Your task to perform on an android device: Open Android settings Image 0: 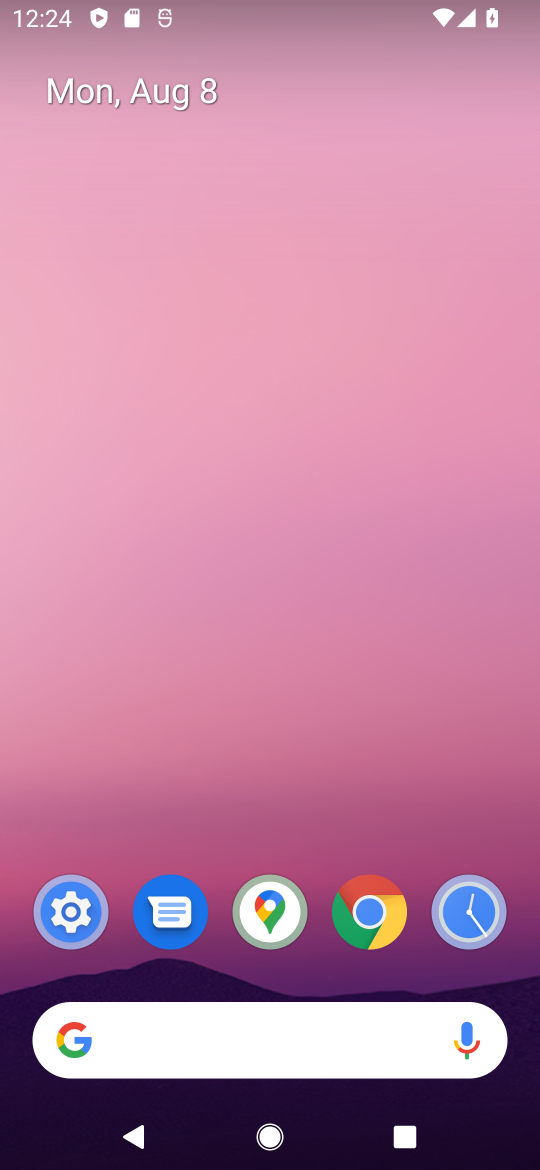
Step 0: click (50, 899)
Your task to perform on an android device: Open Android settings Image 1: 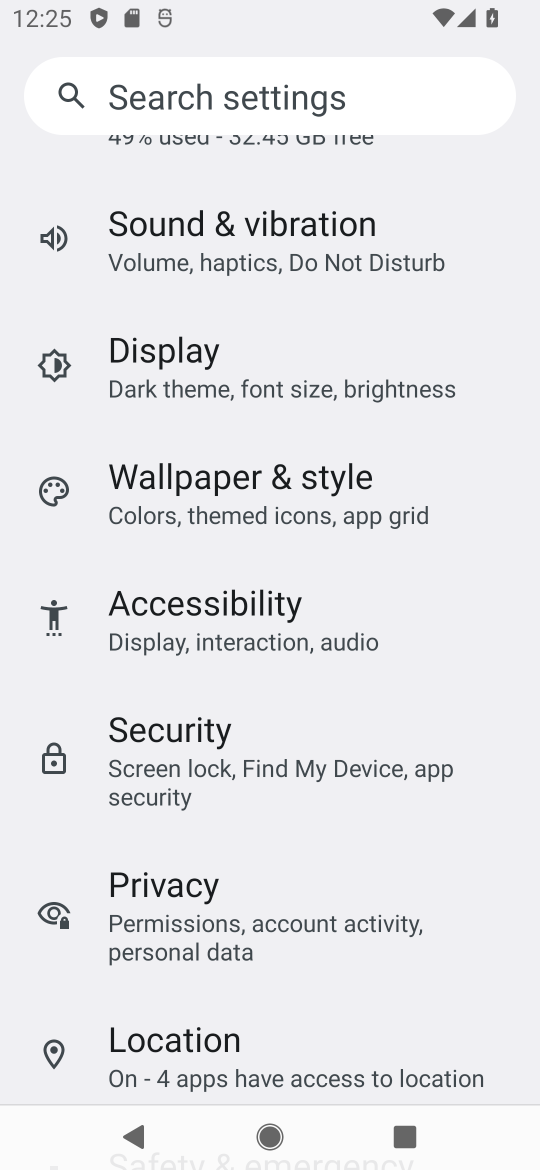
Step 1: drag from (192, 1034) to (329, 120)
Your task to perform on an android device: Open Android settings Image 2: 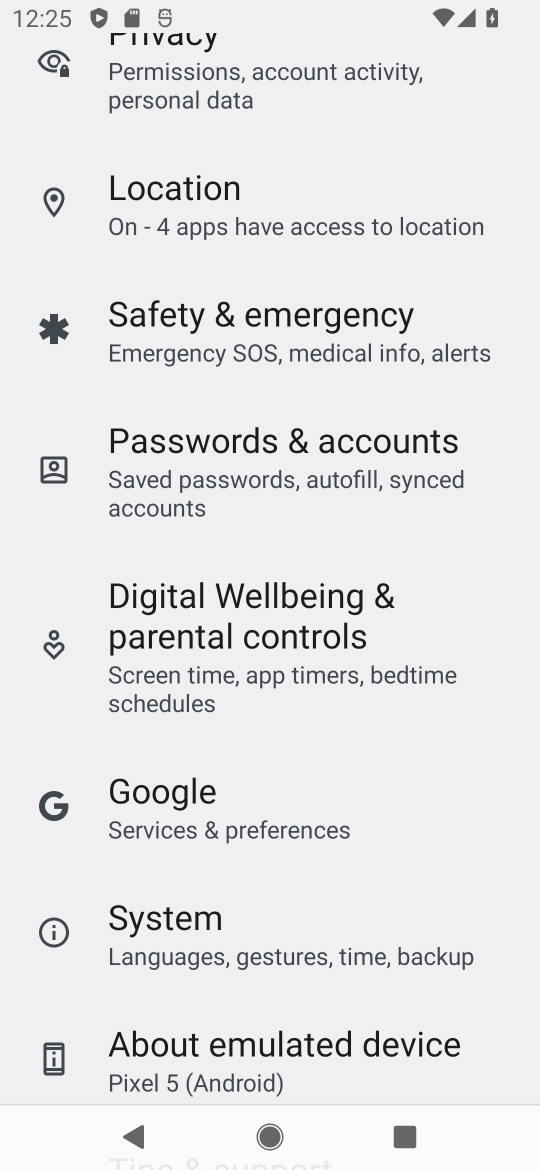
Step 2: click (187, 1065)
Your task to perform on an android device: Open Android settings Image 3: 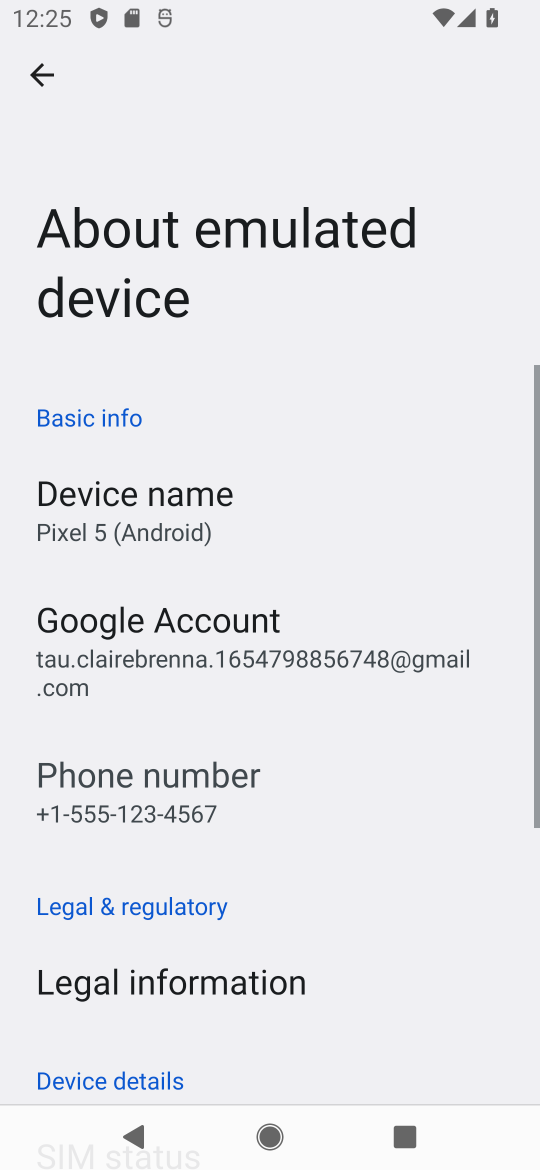
Step 3: task complete